Your task to perform on an android device: Open Maps and search for coffee Image 0: 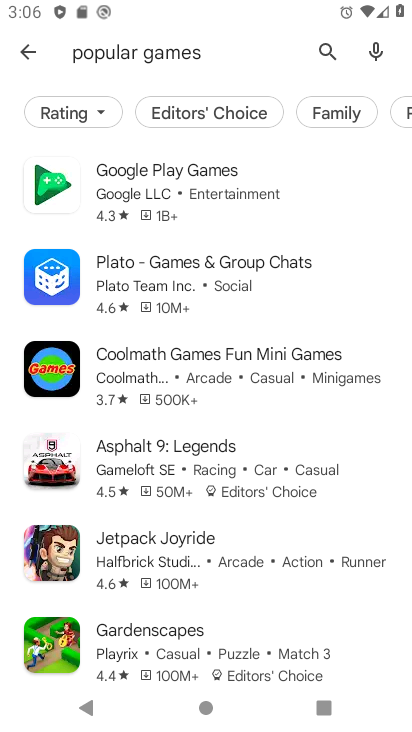
Step 0: press home button
Your task to perform on an android device: Open Maps and search for coffee Image 1: 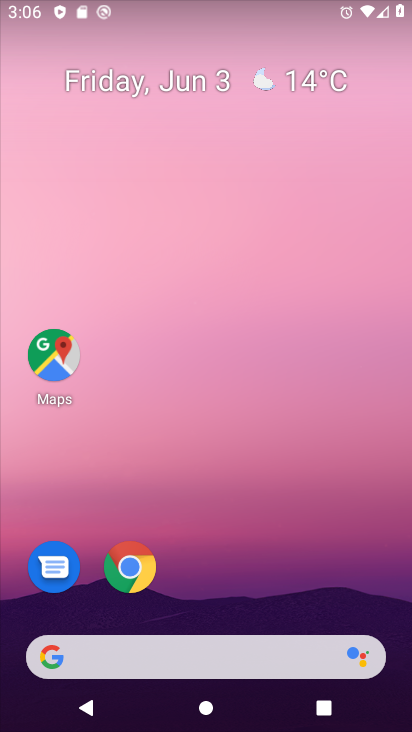
Step 1: drag from (272, 682) to (323, 159)
Your task to perform on an android device: Open Maps and search for coffee Image 2: 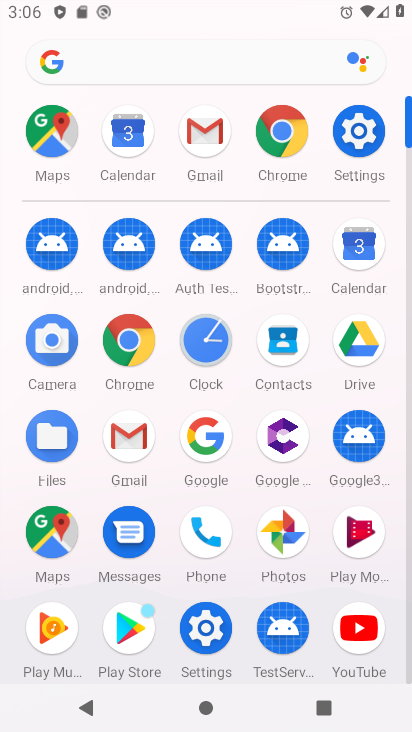
Step 2: click (61, 117)
Your task to perform on an android device: Open Maps and search for coffee Image 3: 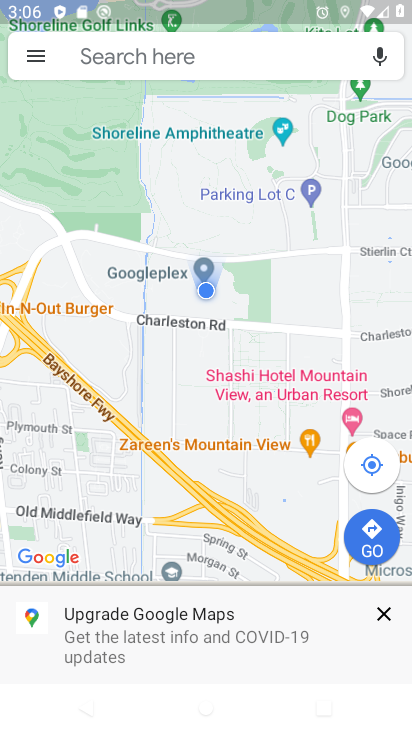
Step 3: click (147, 55)
Your task to perform on an android device: Open Maps and search for coffee Image 4: 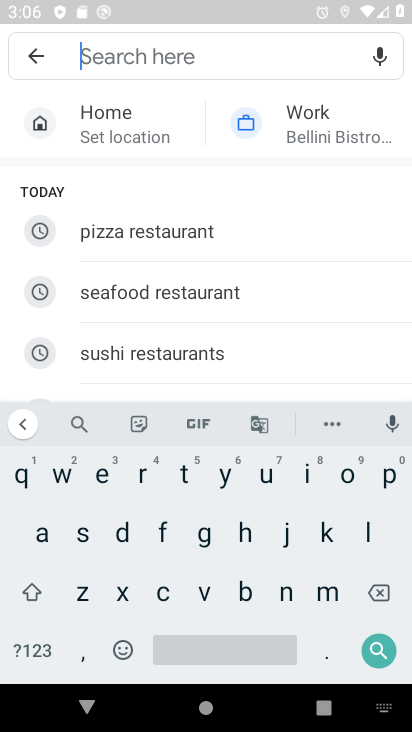
Step 4: click (169, 591)
Your task to perform on an android device: Open Maps and search for coffee Image 5: 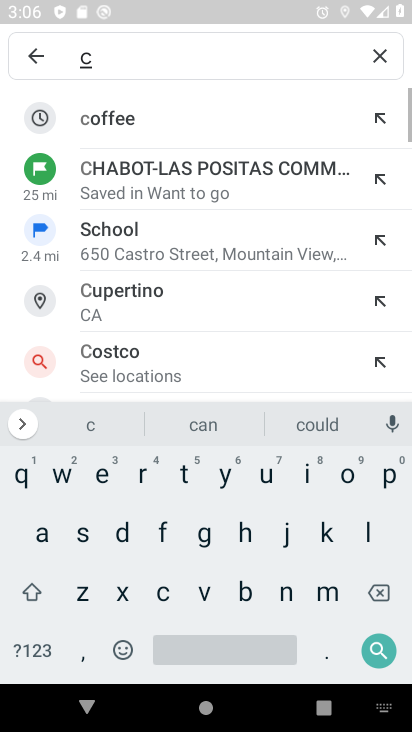
Step 5: click (168, 132)
Your task to perform on an android device: Open Maps and search for coffee Image 6: 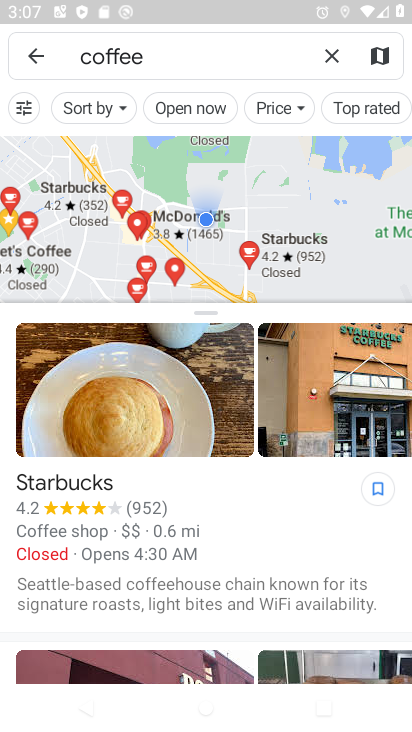
Step 6: task complete